Your task to perform on an android device: open sync settings in chrome Image 0: 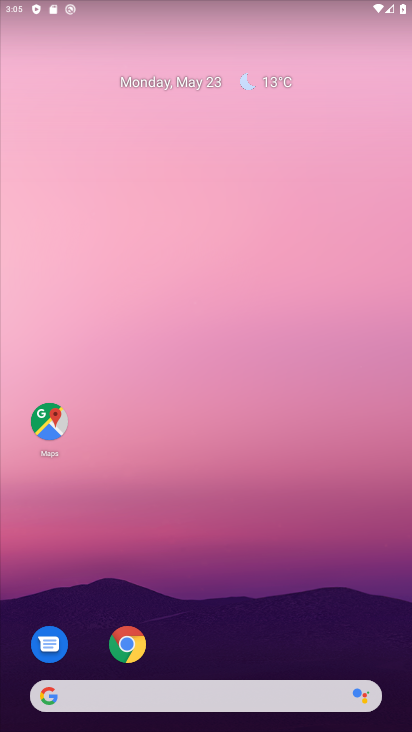
Step 0: drag from (298, 584) to (215, 175)
Your task to perform on an android device: open sync settings in chrome Image 1: 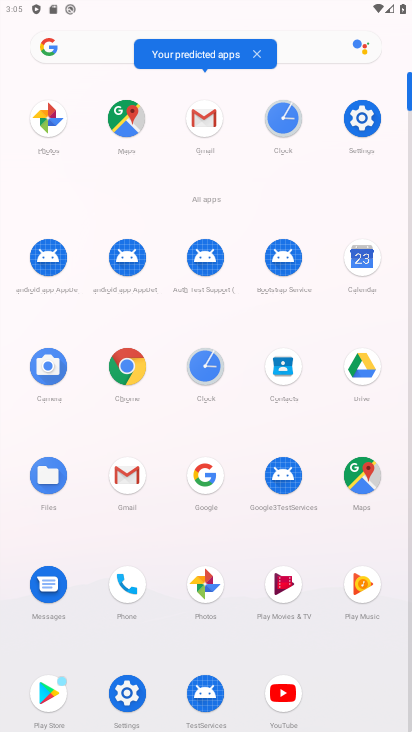
Step 1: click (119, 369)
Your task to perform on an android device: open sync settings in chrome Image 2: 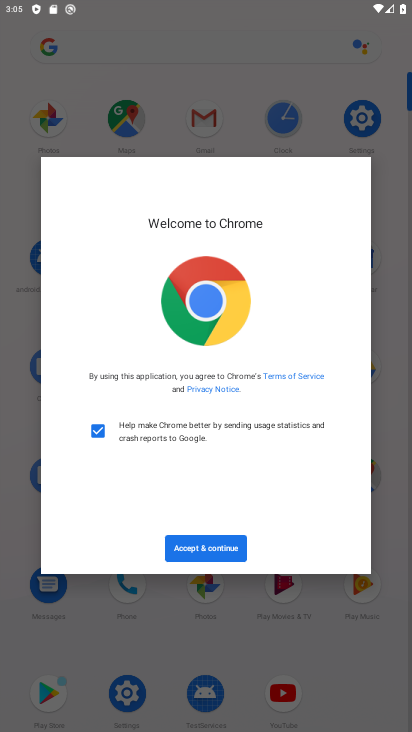
Step 2: click (198, 564)
Your task to perform on an android device: open sync settings in chrome Image 3: 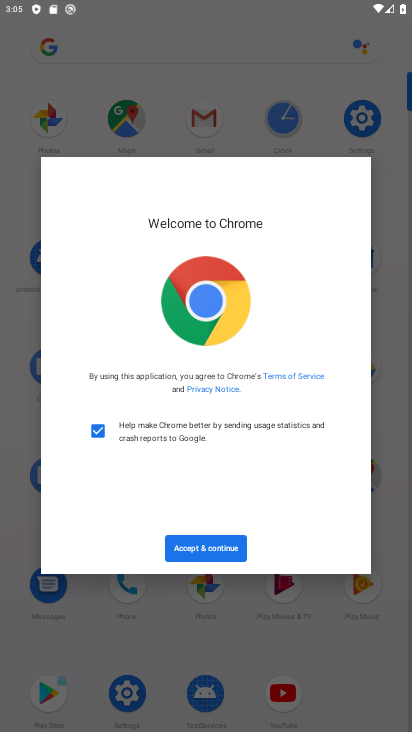
Step 3: click (206, 548)
Your task to perform on an android device: open sync settings in chrome Image 4: 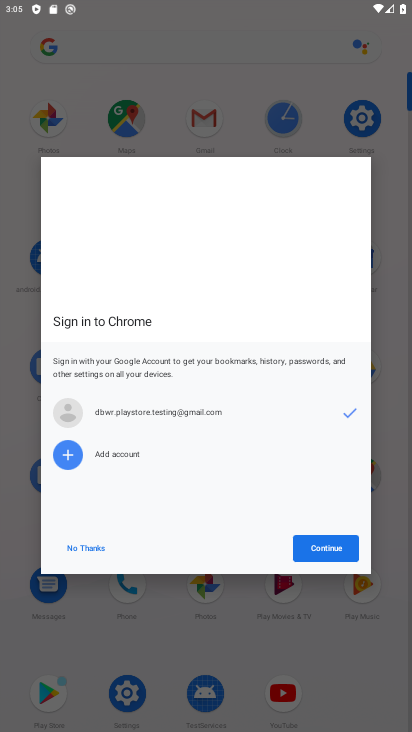
Step 4: click (350, 546)
Your task to perform on an android device: open sync settings in chrome Image 5: 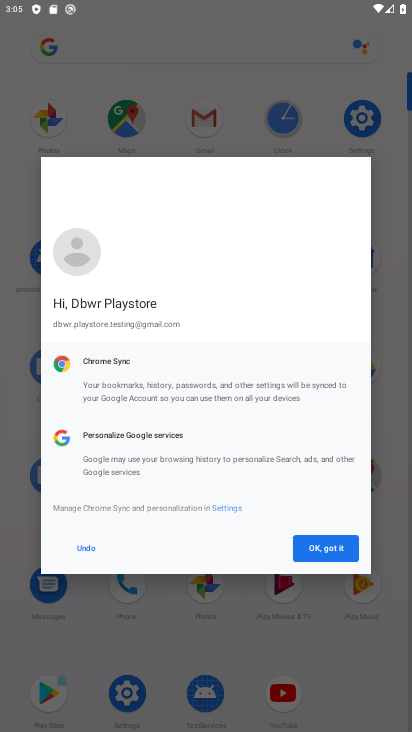
Step 5: click (352, 545)
Your task to perform on an android device: open sync settings in chrome Image 6: 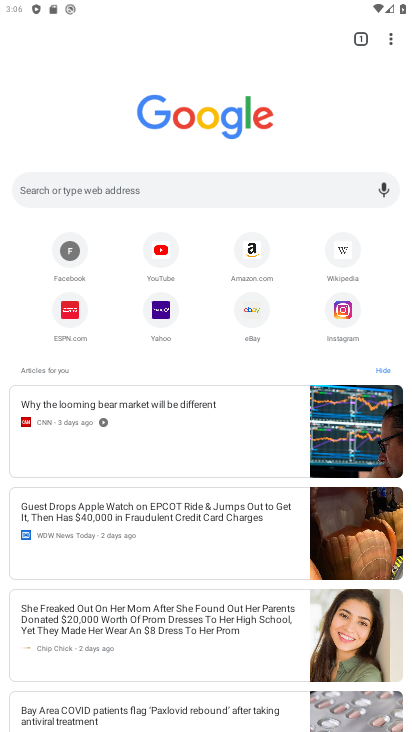
Step 6: drag from (392, 47) to (251, 327)
Your task to perform on an android device: open sync settings in chrome Image 7: 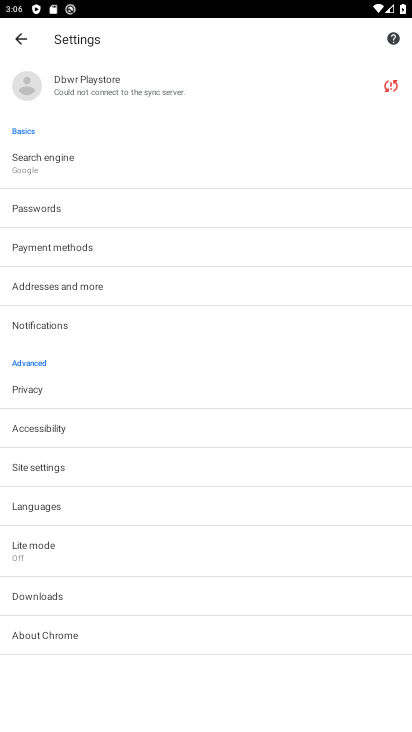
Step 7: click (110, 92)
Your task to perform on an android device: open sync settings in chrome Image 8: 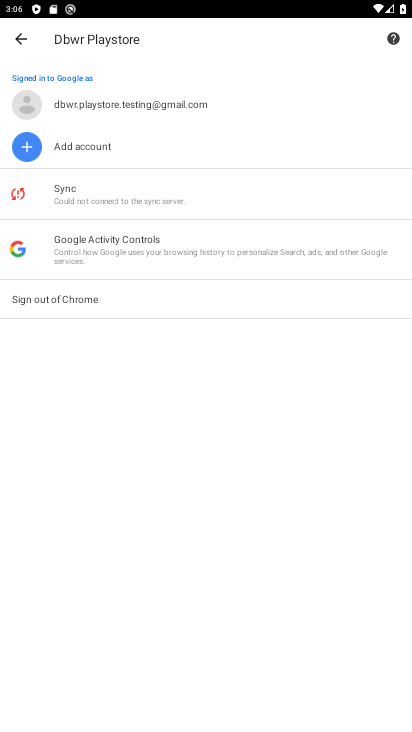
Step 8: click (116, 179)
Your task to perform on an android device: open sync settings in chrome Image 9: 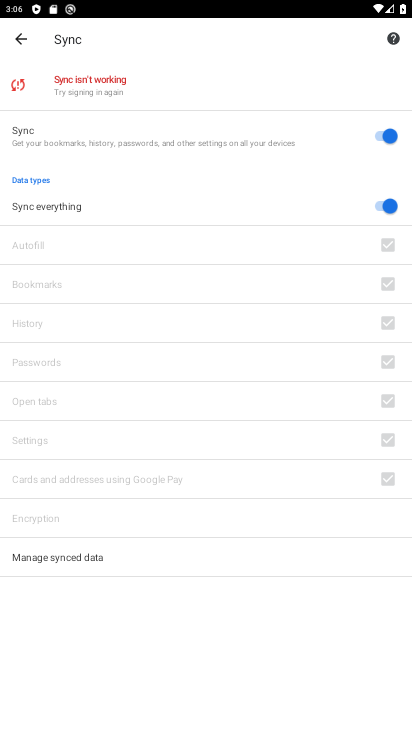
Step 9: task complete